Your task to perform on an android device: move a message to another label in the gmail app Image 0: 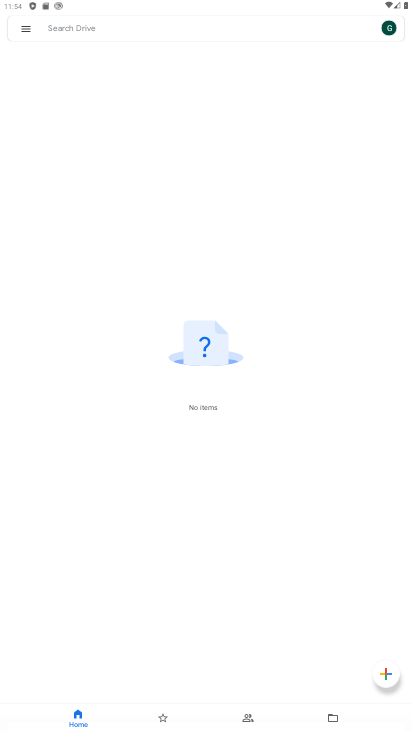
Step 0: press home button
Your task to perform on an android device: move a message to another label in the gmail app Image 1: 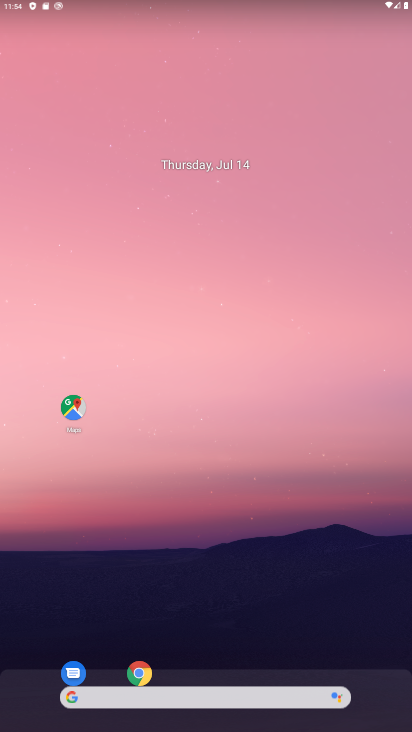
Step 1: drag from (307, 670) to (215, 173)
Your task to perform on an android device: move a message to another label in the gmail app Image 2: 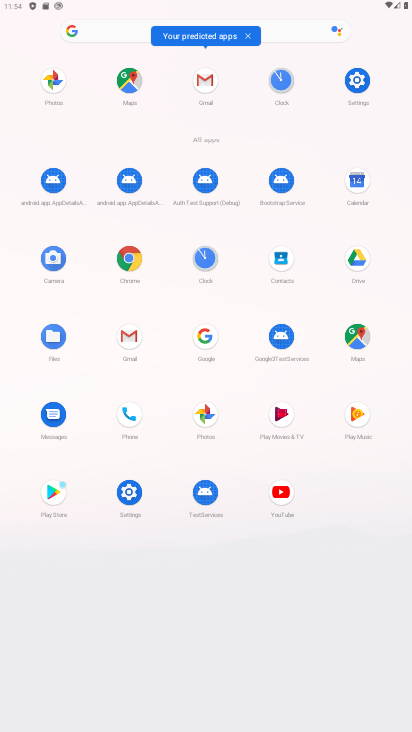
Step 2: drag from (119, 336) to (266, 678)
Your task to perform on an android device: move a message to another label in the gmail app Image 3: 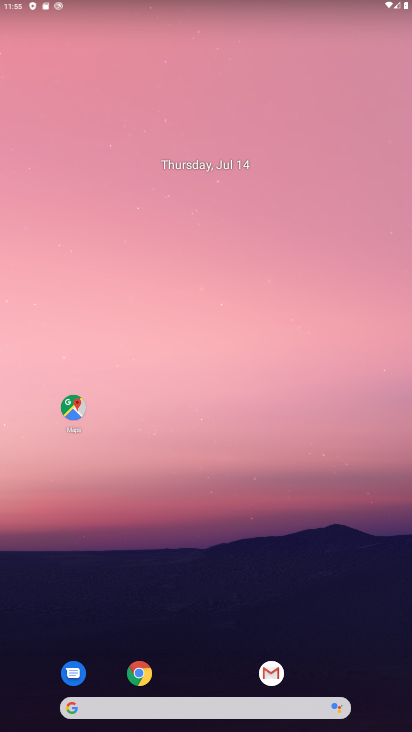
Step 3: click (278, 680)
Your task to perform on an android device: move a message to another label in the gmail app Image 4: 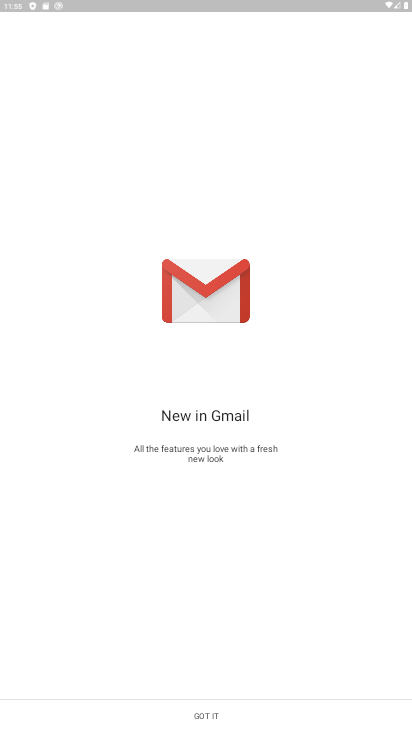
Step 4: click (204, 716)
Your task to perform on an android device: move a message to another label in the gmail app Image 5: 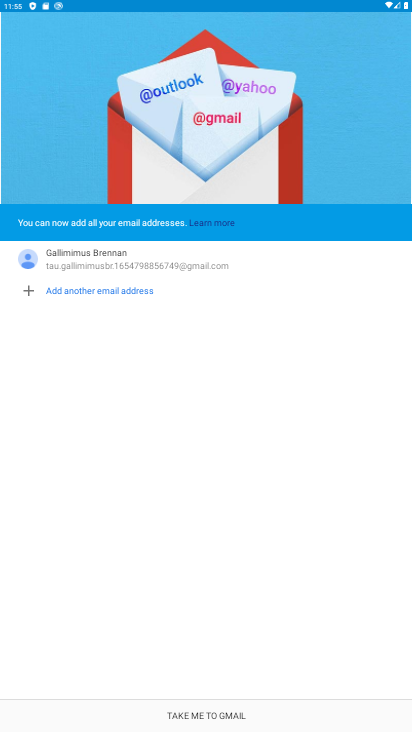
Step 5: click (188, 703)
Your task to perform on an android device: move a message to another label in the gmail app Image 6: 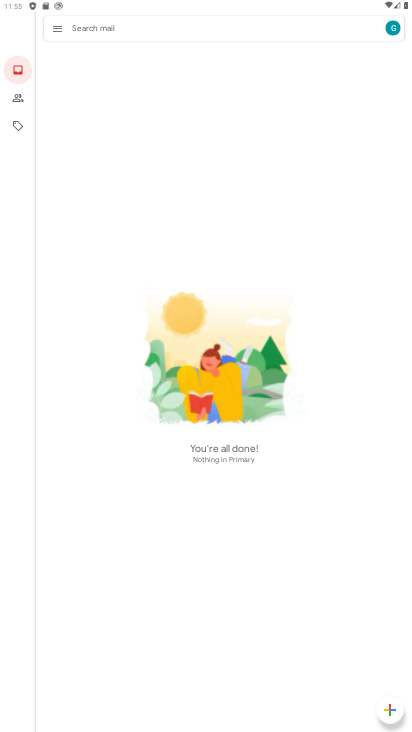
Step 6: click (49, 25)
Your task to perform on an android device: move a message to another label in the gmail app Image 7: 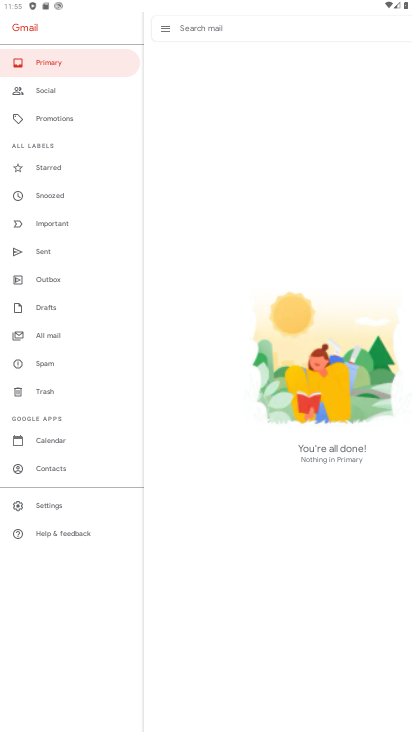
Step 7: click (54, 502)
Your task to perform on an android device: move a message to another label in the gmail app Image 8: 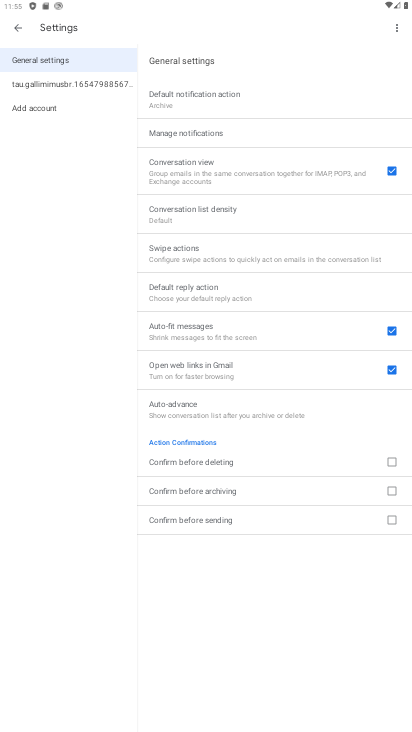
Step 8: click (75, 87)
Your task to perform on an android device: move a message to another label in the gmail app Image 9: 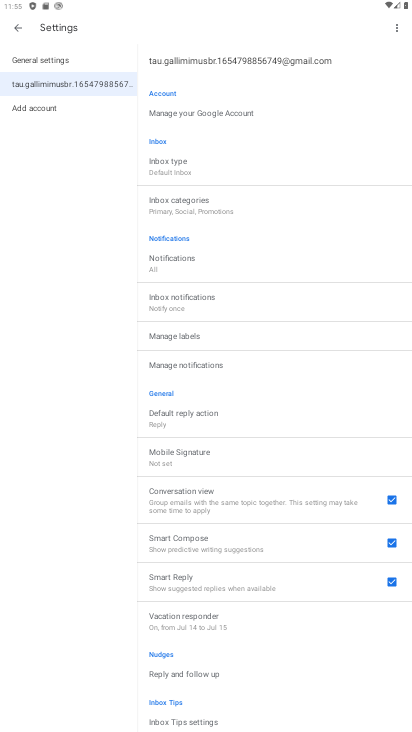
Step 9: click (216, 337)
Your task to perform on an android device: move a message to another label in the gmail app Image 10: 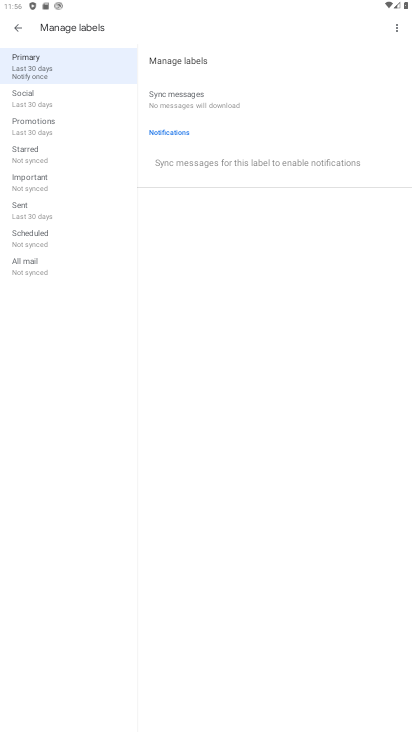
Step 10: task complete